Your task to perform on an android device: Show me the alarms in the clock app Image 0: 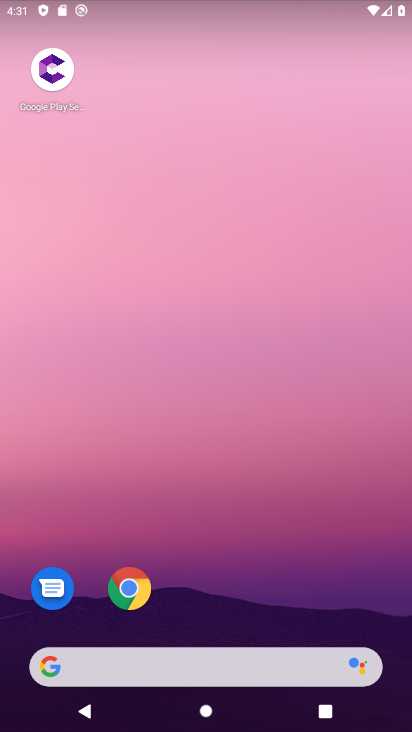
Step 0: click (177, 309)
Your task to perform on an android device: Show me the alarms in the clock app Image 1: 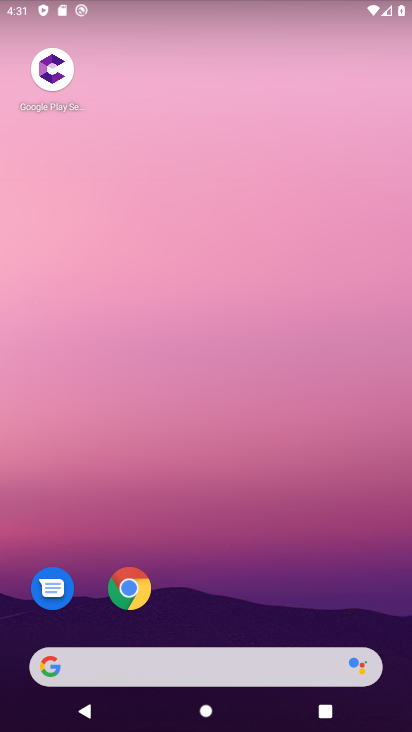
Step 1: drag from (223, 54) to (212, 0)
Your task to perform on an android device: Show me the alarms in the clock app Image 2: 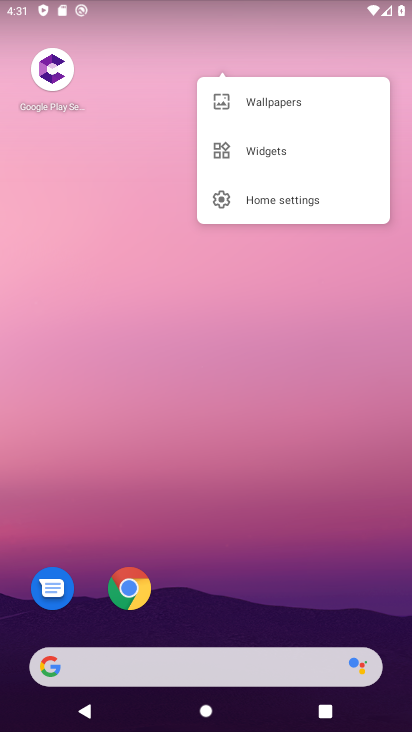
Step 2: click (266, 256)
Your task to perform on an android device: Show me the alarms in the clock app Image 3: 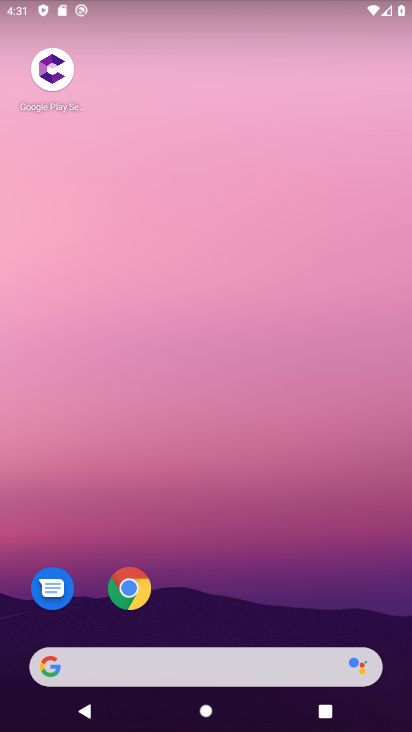
Step 3: click (223, 202)
Your task to perform on an android device: Show me the alarms in the clock app Image 4: 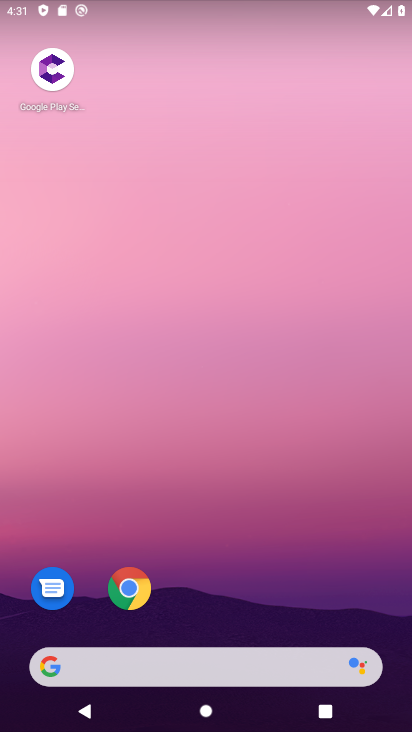
Step 4: click (135, 262)
Your task to perform on an android device: Show me the alarms in the clock app Image 5: 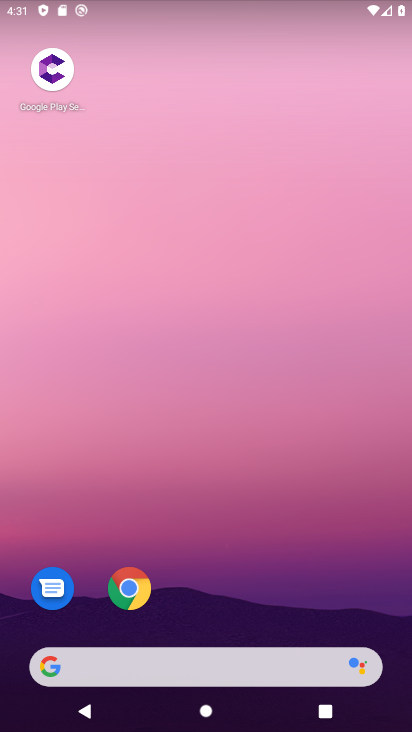
Step 5: drag from (196, 594) to (195, 96)
Your task to perform on an android device: Show me the alarms in the clock app Image 6: 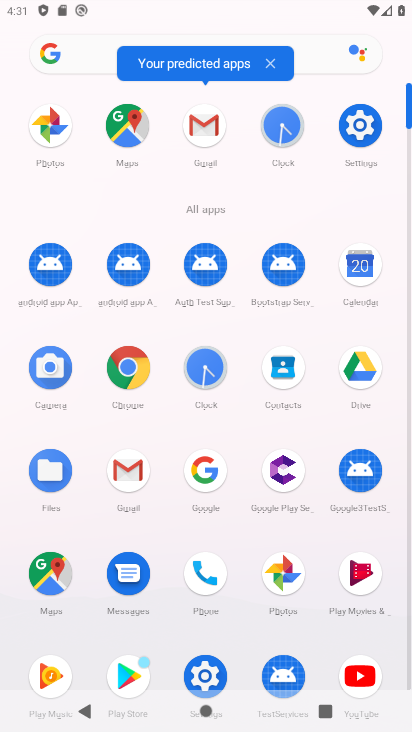
Step 6: click (274, 132)
Your task to perform on an android device: Show me the alarms in the clock app Image 7: 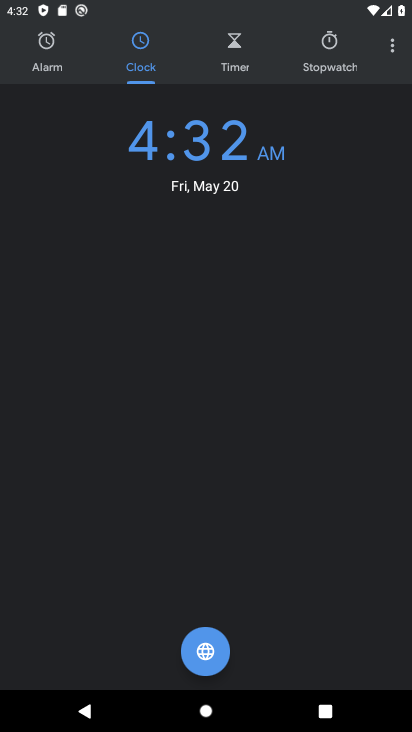
Step 7: click (38, 70)
Your task to perform on an android device: Show me the alarms in the clock app Image 8: 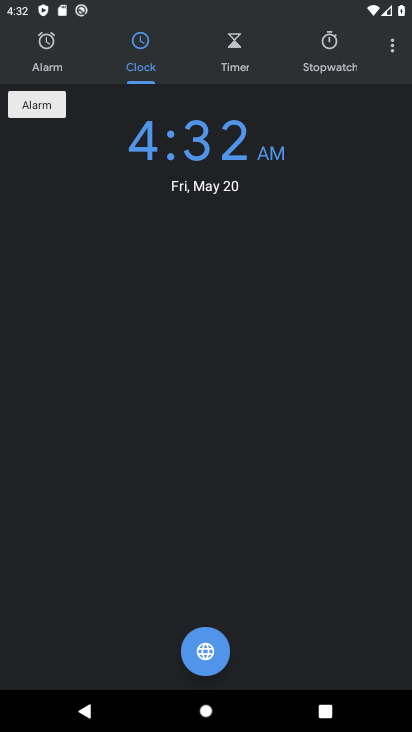
Step 8: task complete